Your task to perform on an android device: Set the phone to "Do not disturb". Image 0: 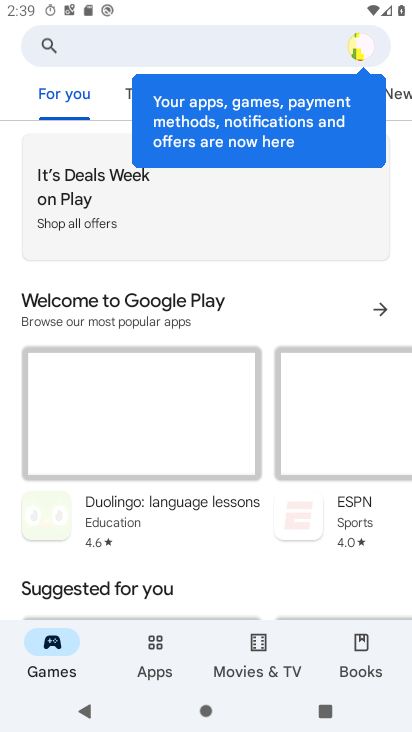
Step 0: press home button
Your task to perform on an android device: Set the phone to "Do not disturb". Image 1: 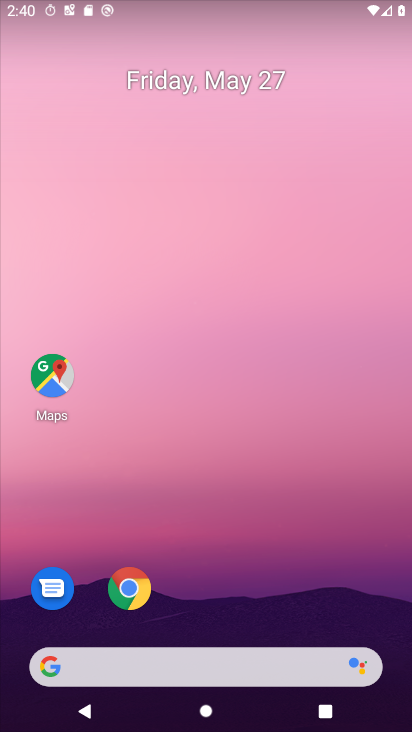
Step 1: drag from (244, 608) to (225, 4)
Your task to perform on an android device: Set the phone to "Do not disturb". Image 2: 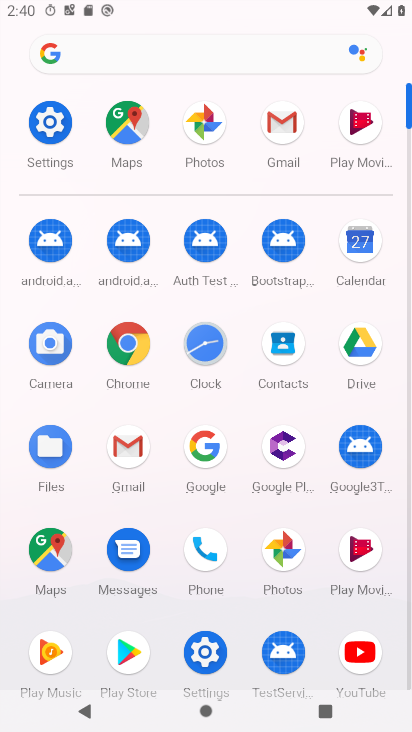
Step 2: click (48, 120)
Your task to perform on an android device: Set the phone to "Do not disturb". Image 3: 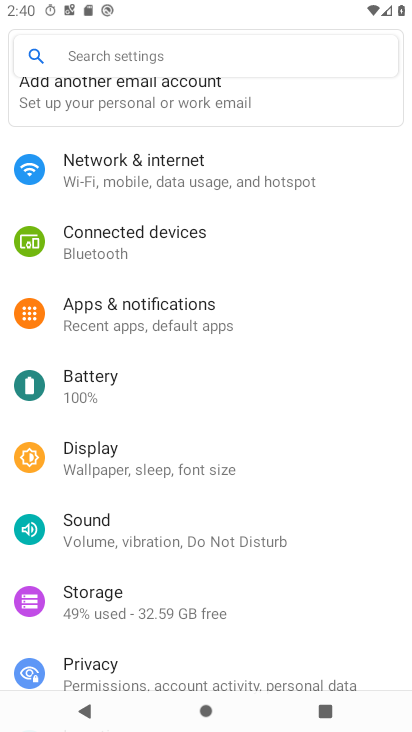
Step 3: click (156, 544)
Your task to perform on an android device: Set the phone to "Do not disturb". Image 4: 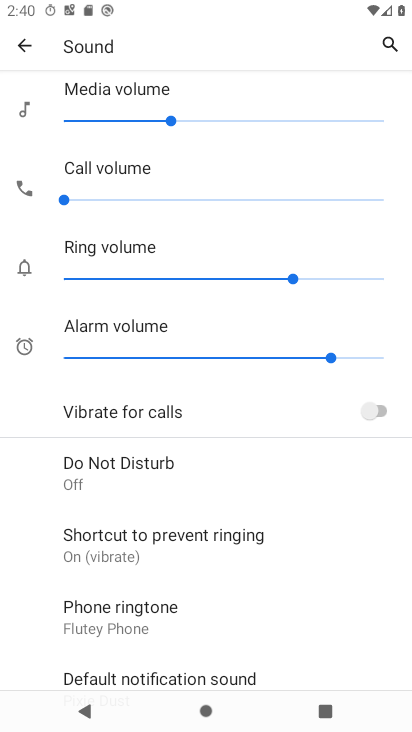
Step 4: click (92, 467)
Your task to perform on an android device: Set the phone to "Do not disturb". Image 5: 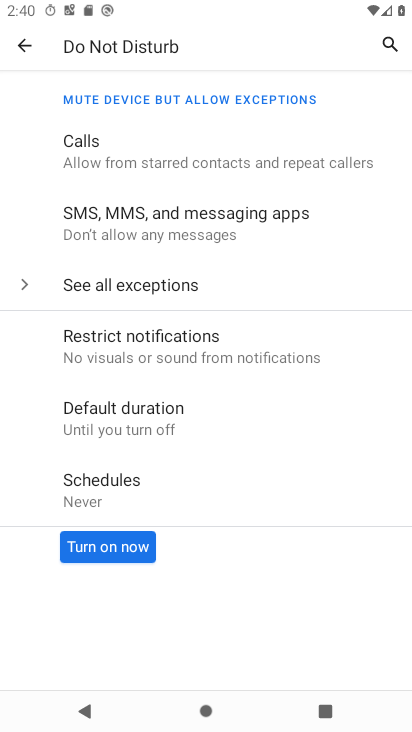
Step 5: click (111, 543)
Your task to perform on an android device: Set the phone to "Do not disturb". Image 6: 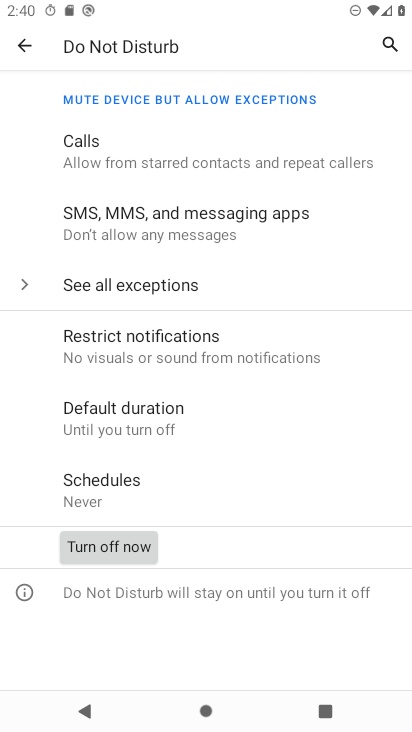
Step 6: task complete